Your task to perform on an android device: Open Google Chrome and click the shortcut for Amazon.com Image 0: 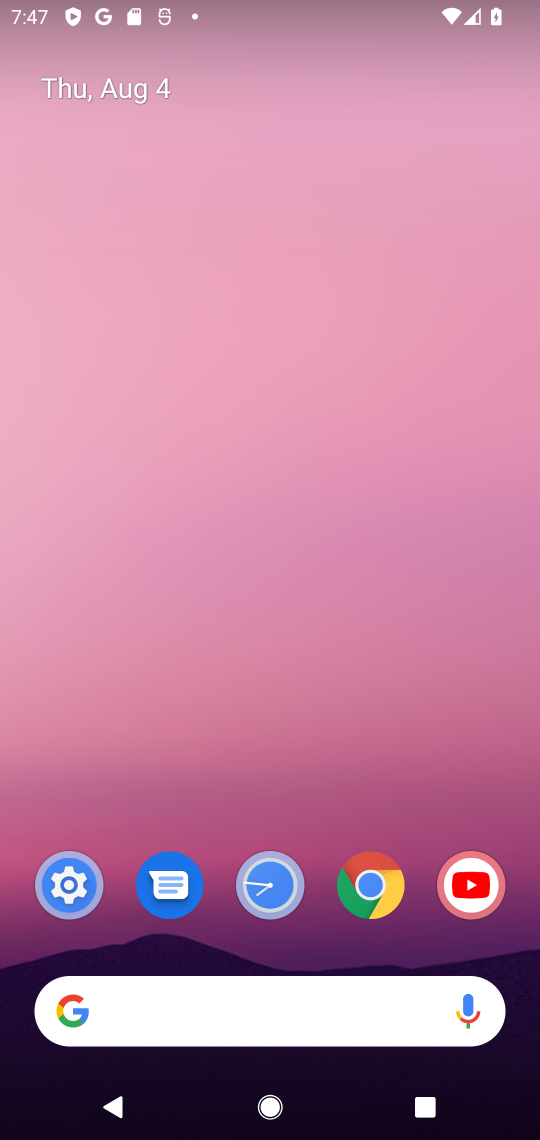
Step 0: click (369, 879)
Your task to perform on an android device: Open Google Chrome and click the shortcut for Amazon.com Image 1: 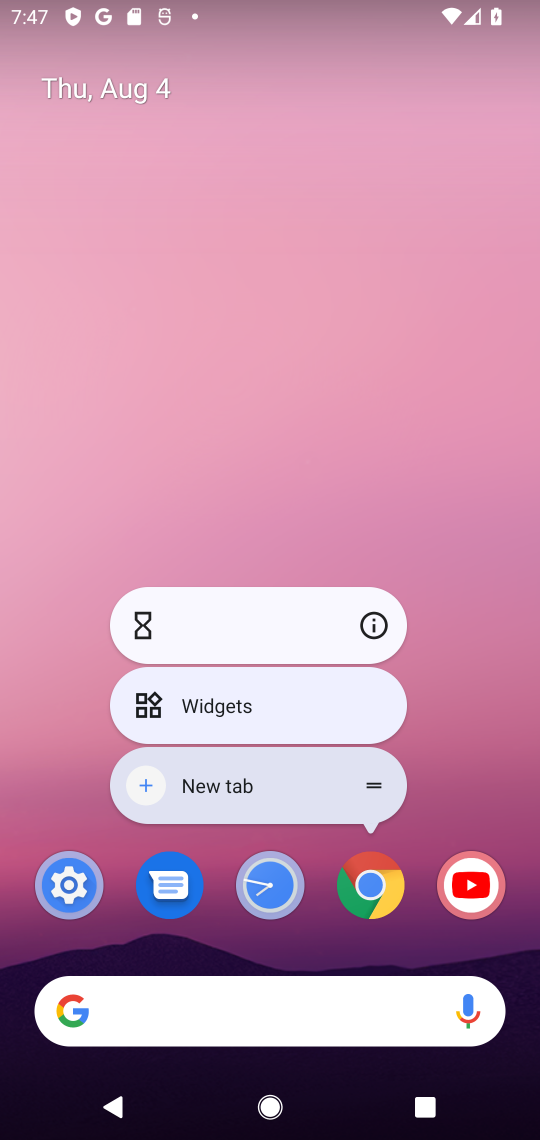
Step 1: click (371, 888)
Your task to perform on an android device: Open Google Chrome and click the shortcut for Amazon.com Image 2: 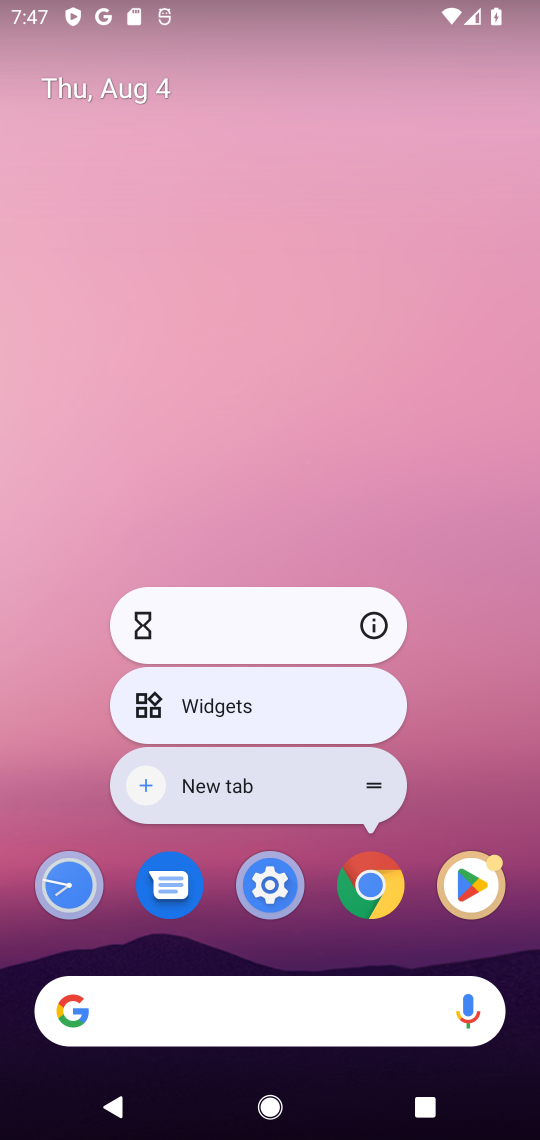
Step 2: click (378, 881)
Your task to perform on an android device: Open Google Chrome and click the shortcut for Amazon.com Image 3: 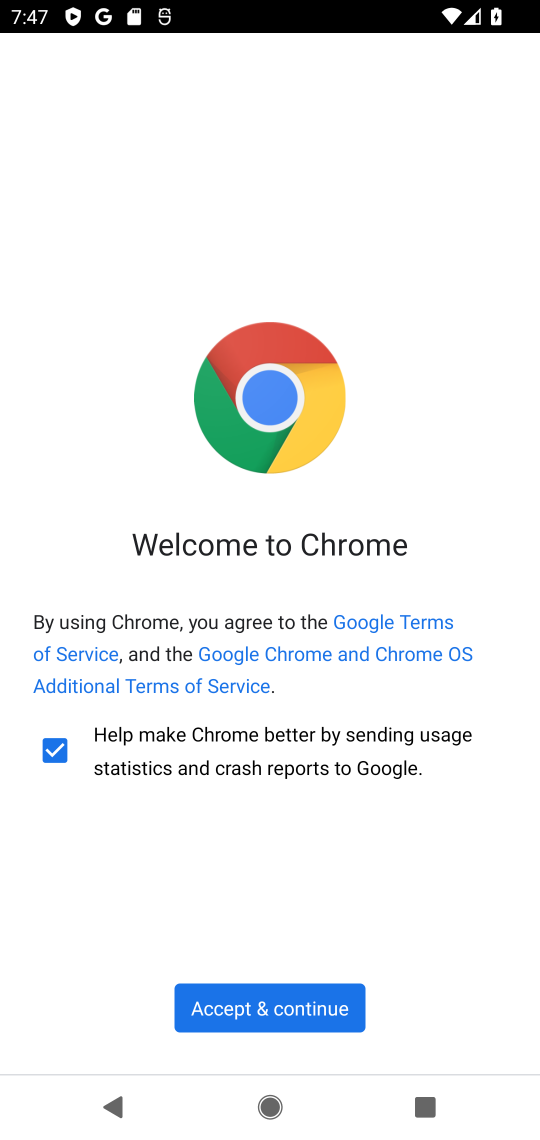
Step 3: click (258, 1003)
Your task to perform on an android device: Open Google Chrome and click the shortcut for Amazon.com Image 4: 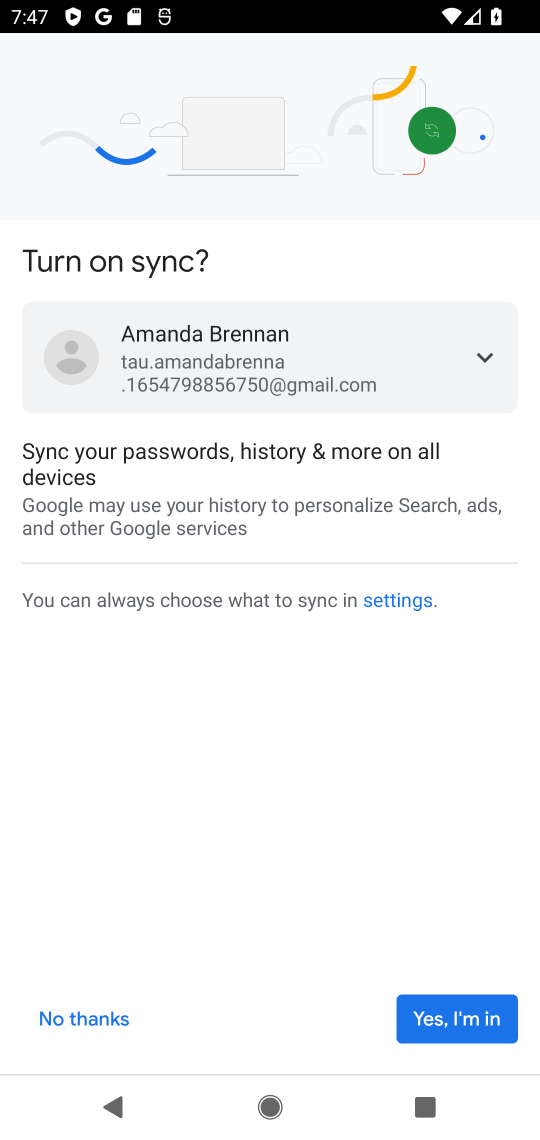
Step 4: click (474, 1016)
Your task to perform on an android device: Open Google Chrome and click the shortcut for Amazon.com Image 5: 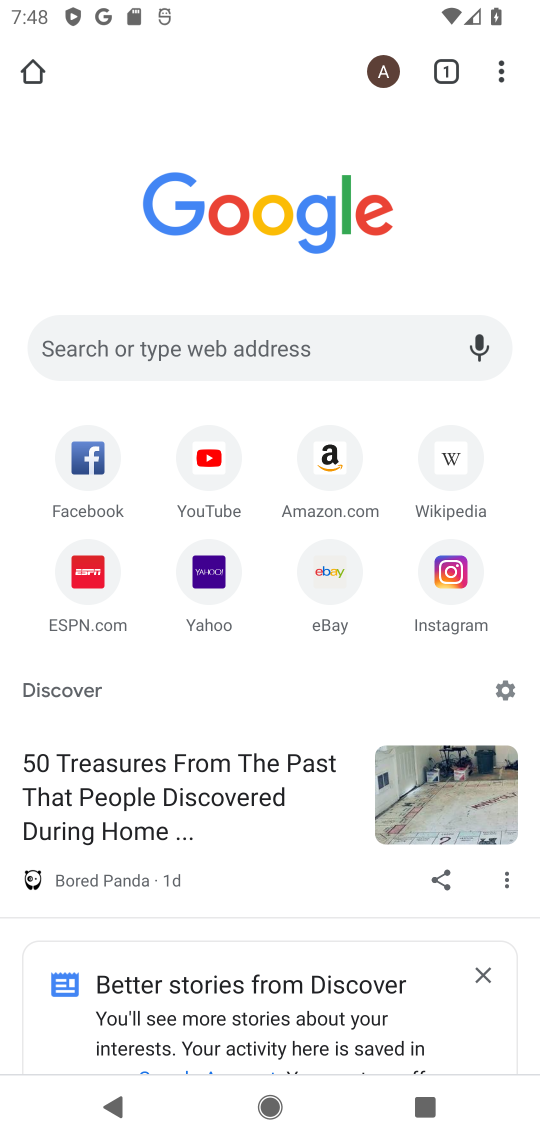
Step 5: click (334, 443)
Your task to perform on an android device: Open Google Chrome and click the shortcut for Amazon.com Image 6: 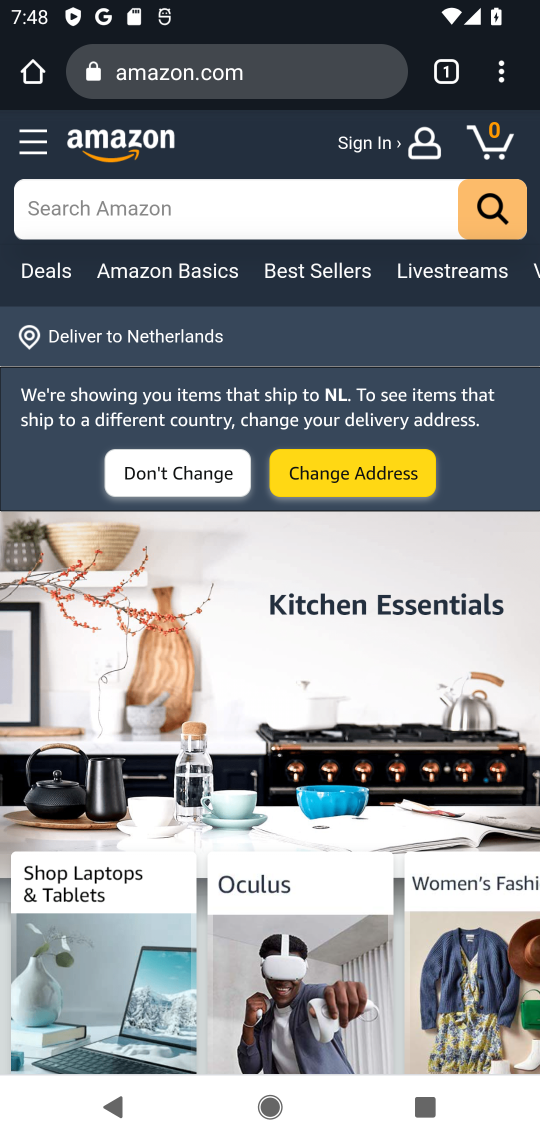
Step 6: task complete